Your task to perform on an android device: change notification settings in the gmail app Image 0: 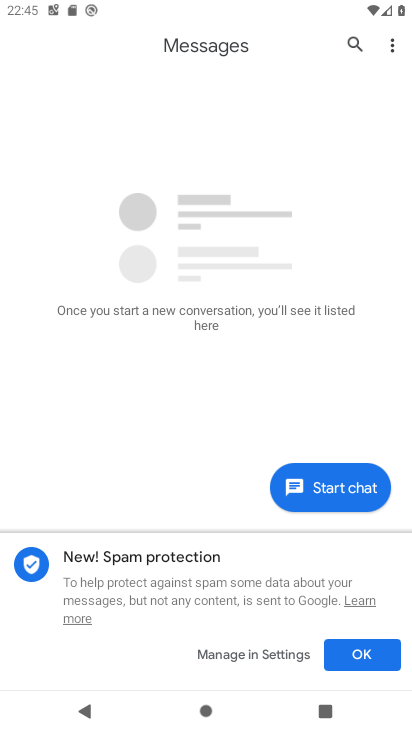
Step 0: press home button
Your task to perform on an android device: change notification settings in the gmail app Image 1: 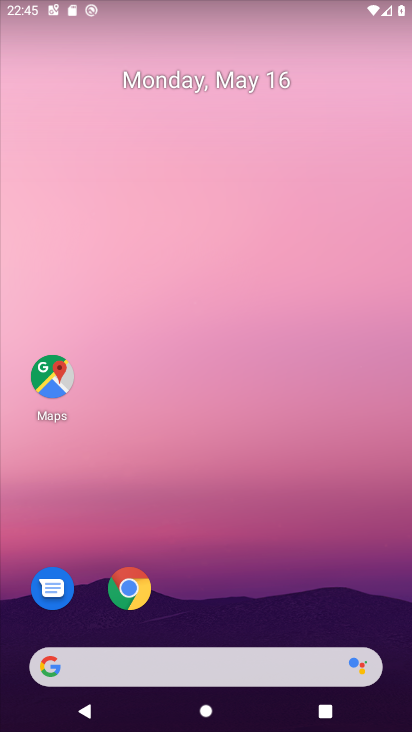
Step 1: drag from (226, 633) to (235, 0)
Your task to perform on an android device: change notification settings in the gmail app Image 2: 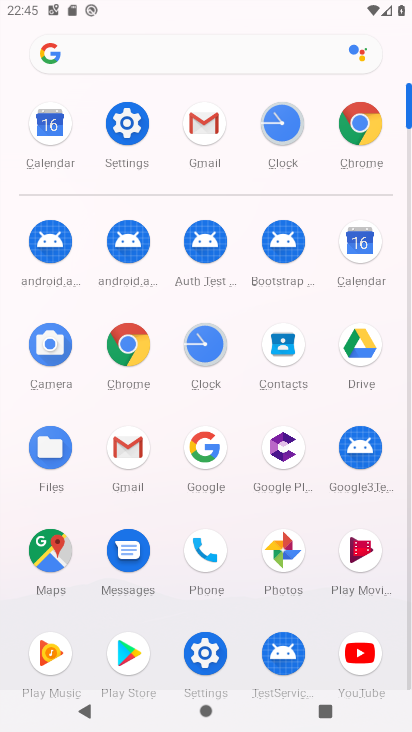
Step 2: click (200, 118)
Your task to perform on an android device: change notification settings in the gmail app Image 3: 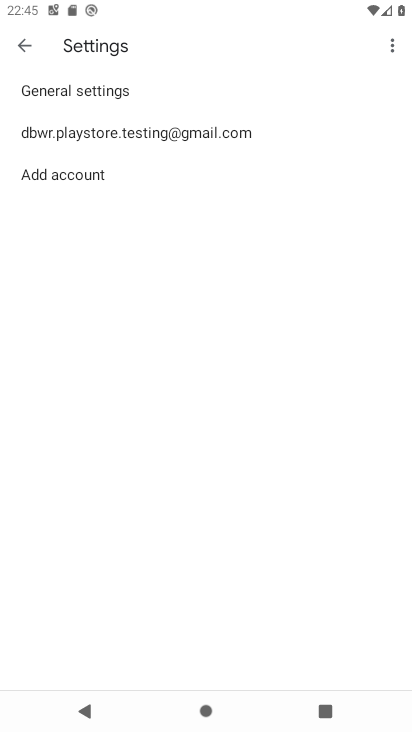
Step 3: click (152, 86)
Your task to perform on an android device: change notification settings in the gmail app Image 4: 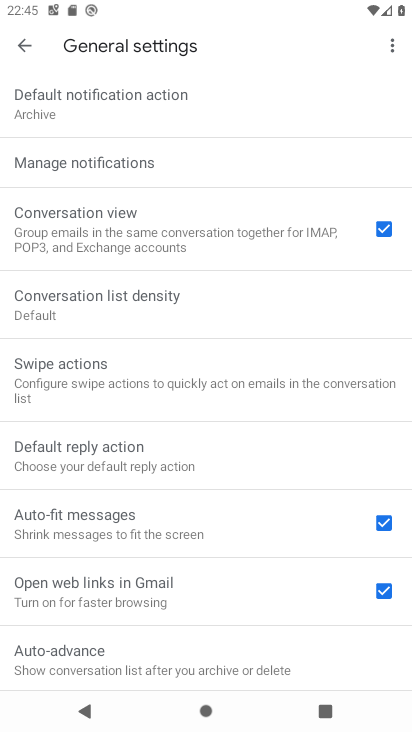
Step 4: click (180, 154)
Your task to perform on an android device: change notification settings in the gmail app Image 5: 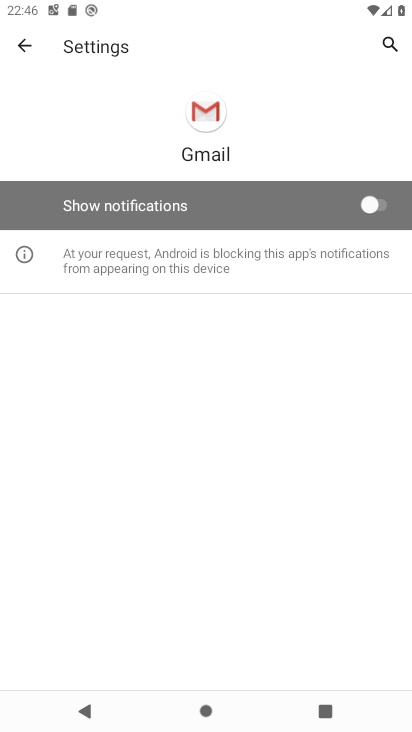
Step 5: click (378, 201)
Your task to perform on an android device: change notification settings in the gmail app Image 6: 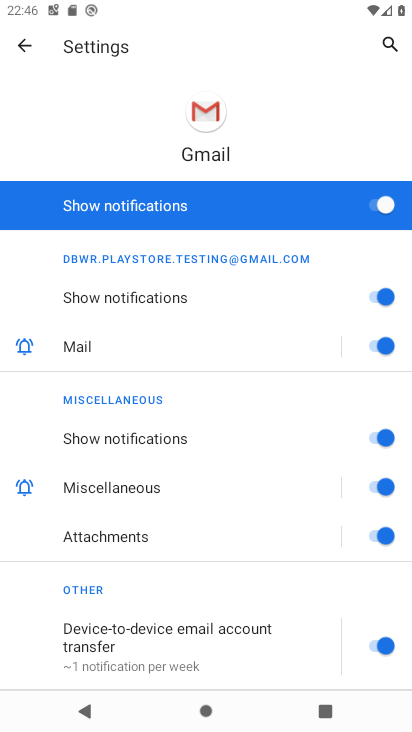
Step 6: task complete